Your task to perform on an android device: turn off wifi Image 0: 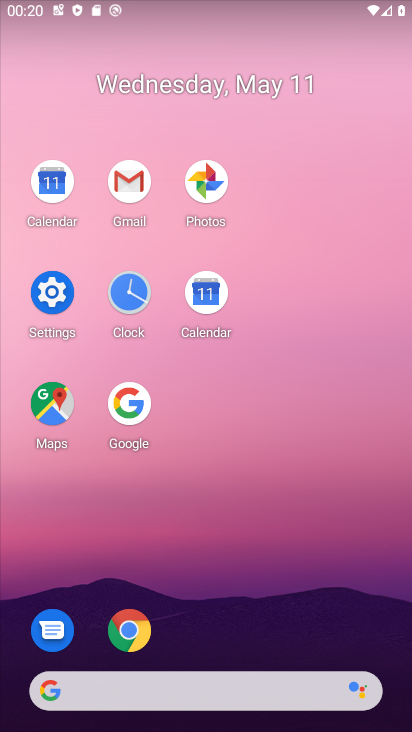
Step 0: click (58, 294)
Your task to perform on an android device: turn off wifi Image 1: 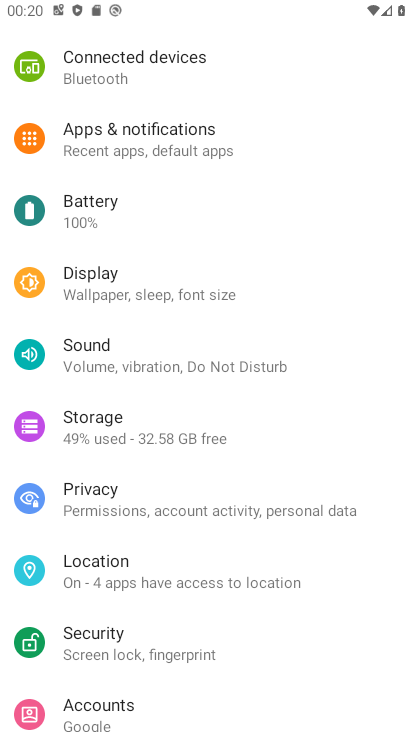
Step 1: drag from (294, 147) to (268, 478)
Your task to perform on an android device: turn off wifi Image 2: 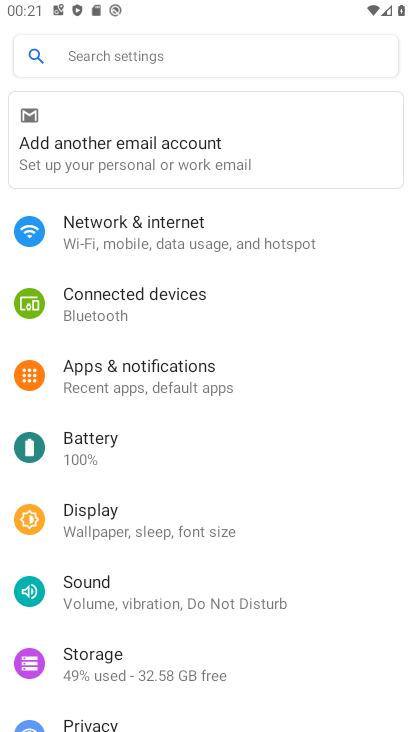
Step 2: click (165, 231)
Your task to perform on an android device: turn off wifi Image 3: 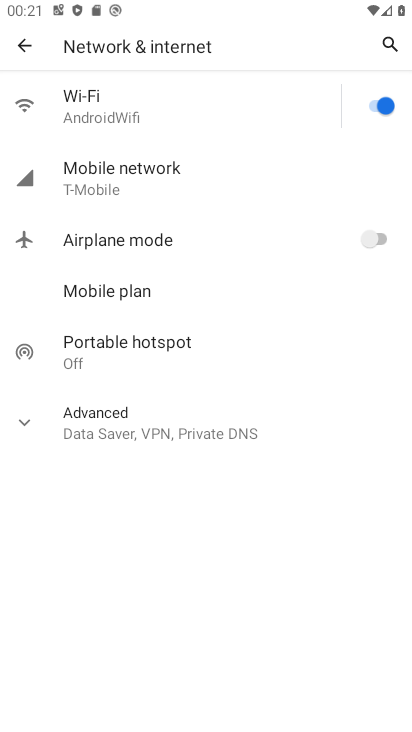
Step 3: click (376, 105)
Your task to perform on an android device: turn off wifi Image 4: 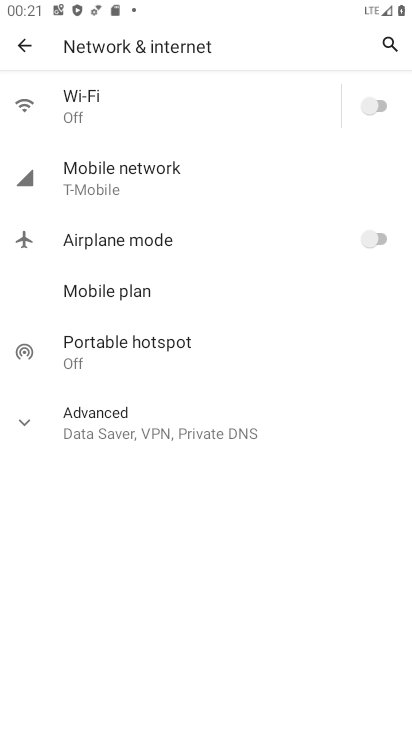
Step 4: task complete